Your task to perform on an android device: Add "razer blade" to the cart on bestbuy.com, then select checkout. Image 0: 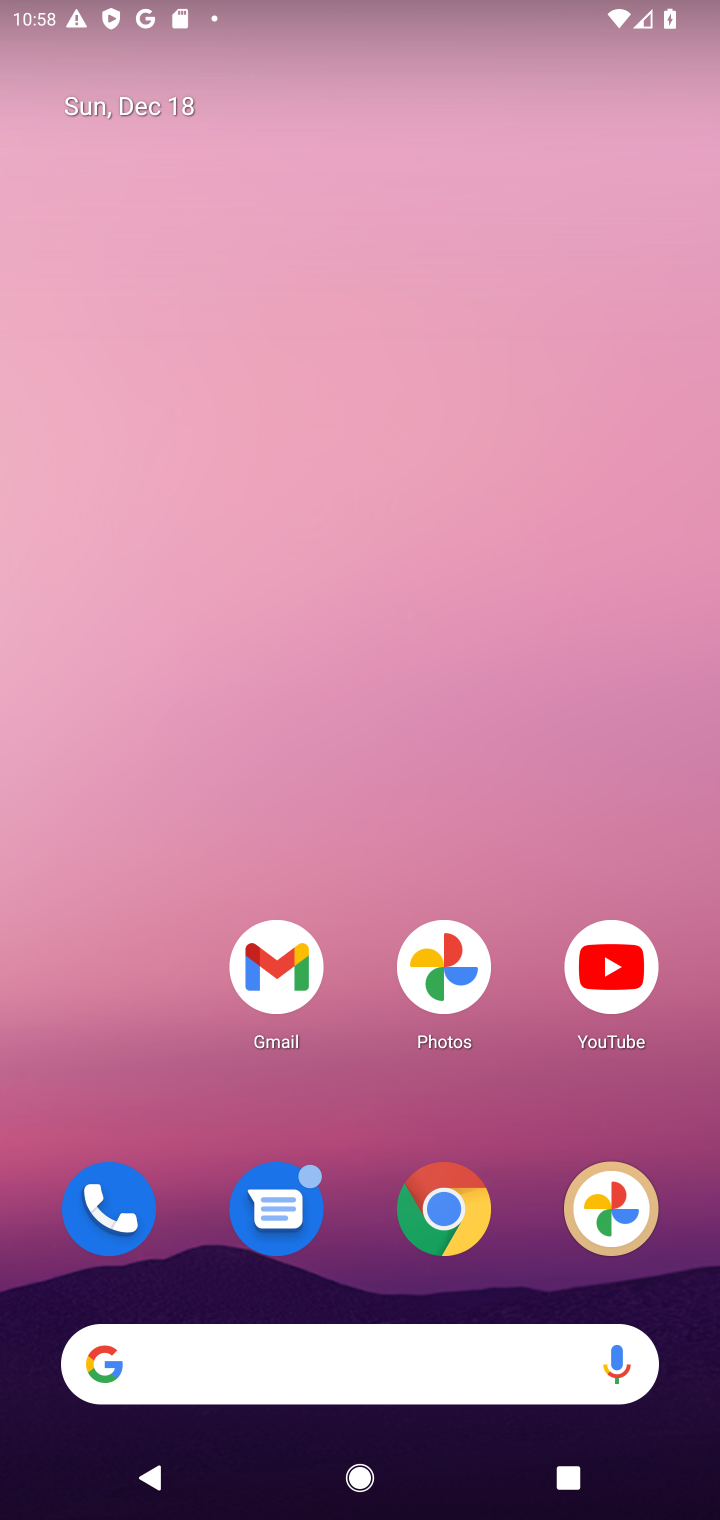
Step 0: click (444, 1201)
Your task to perform on an android device: Add "razer blade" to the cart on bestbuy.com, then select checkout. Image 1: 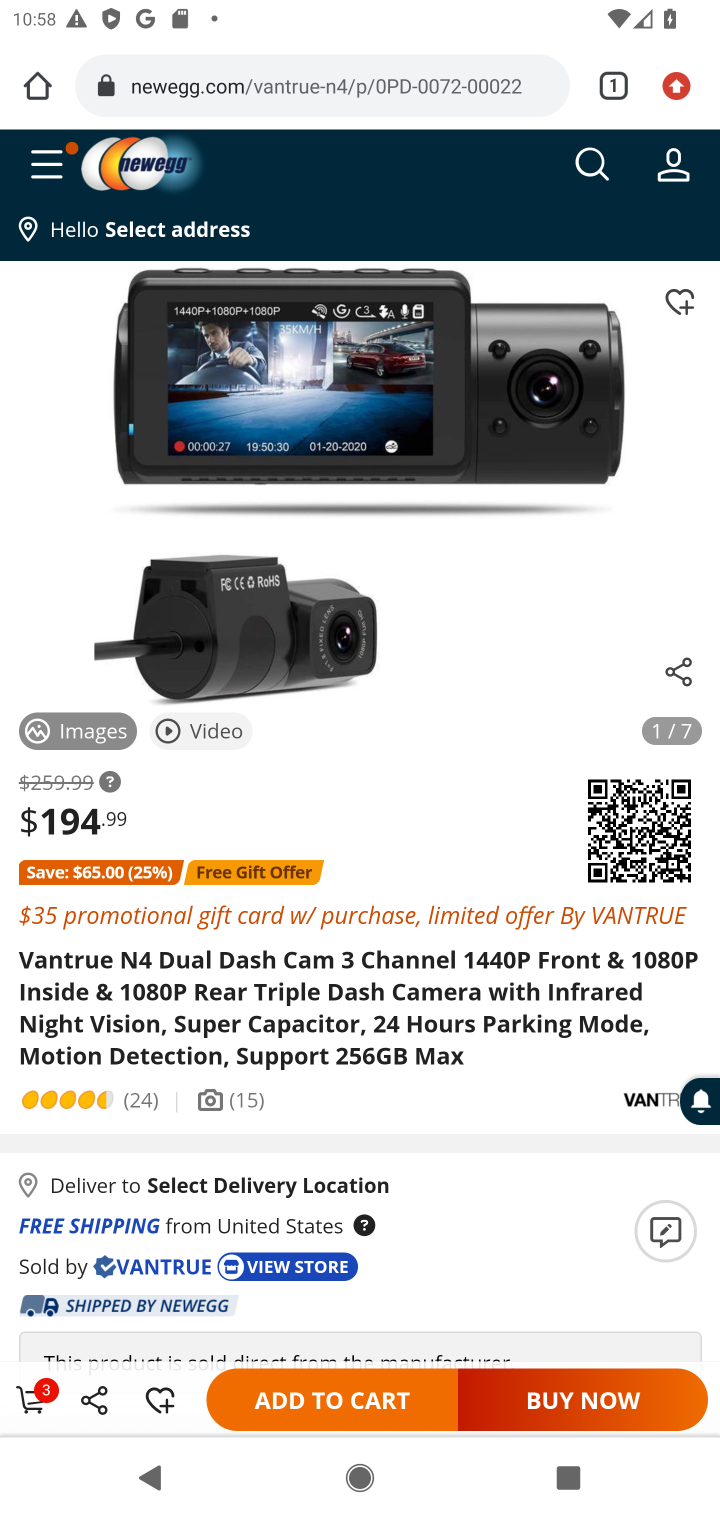
Step 1: click (351, 83)
Your task to perform on an android device: Add "razer blade" to the cart on bestbuy.com, then select checkout. Image 2: 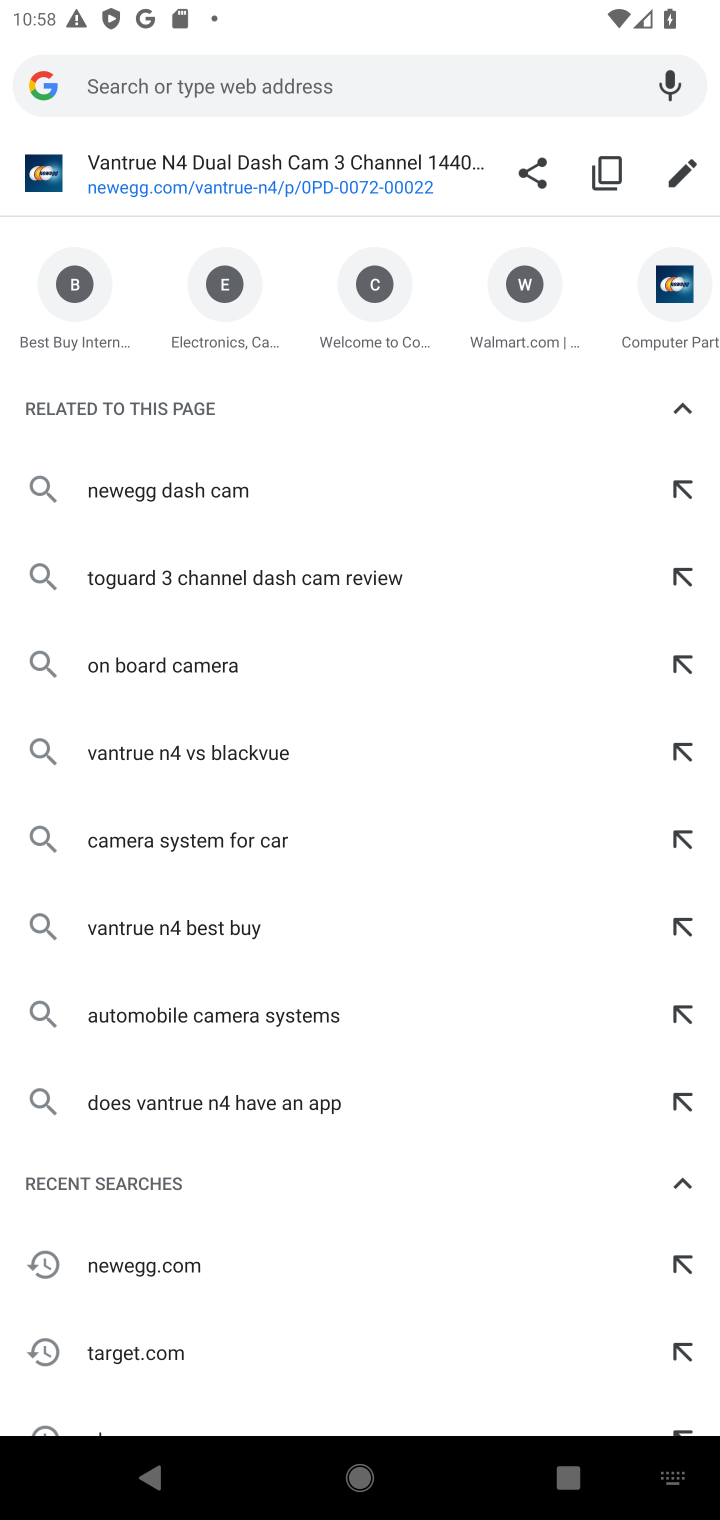
Step 2: type "BESTBUY"
Your task to perform on an android device: Add "razer blade" to the cart on bestbuy.com, then select checkout. Image 3: 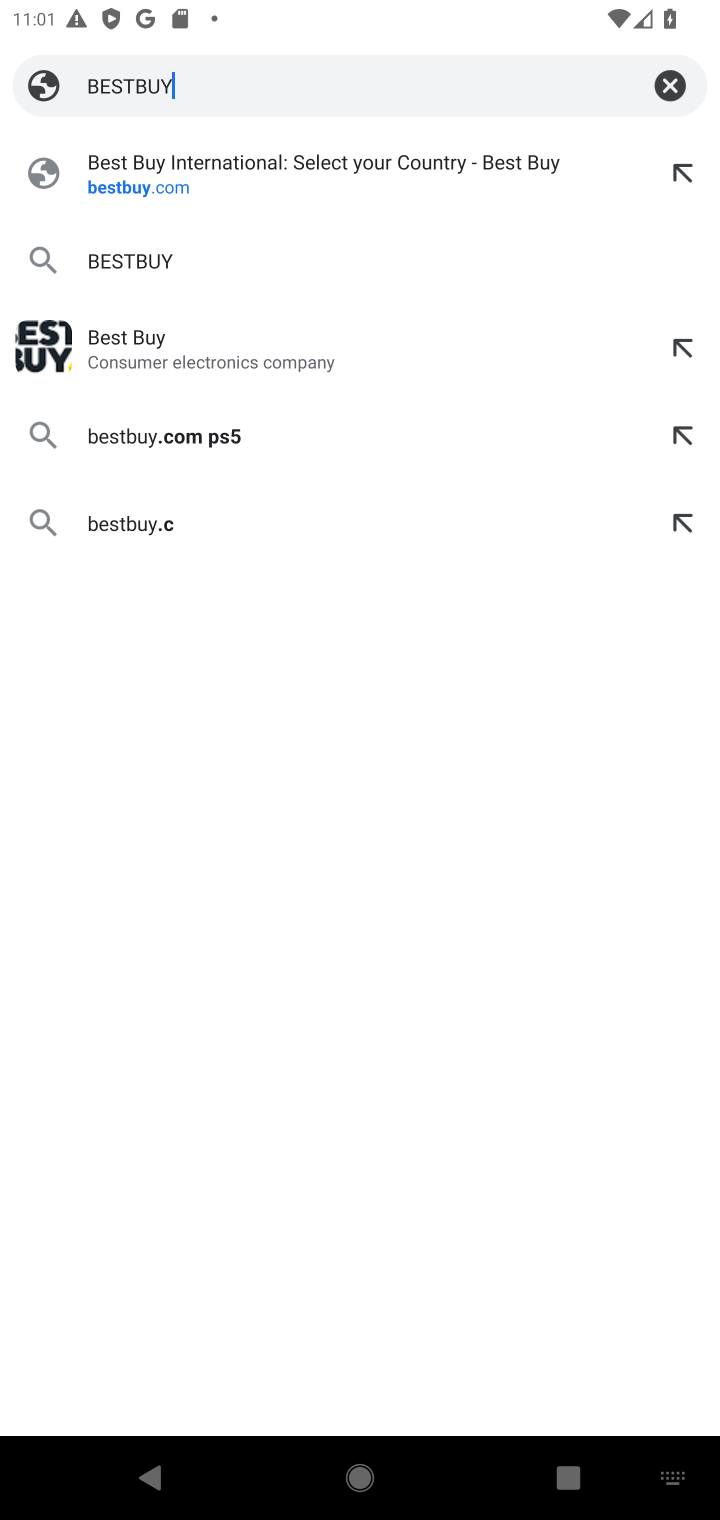
Step 3: task complete